Your task to perform on an android device: When is my next meeting? Image 0: 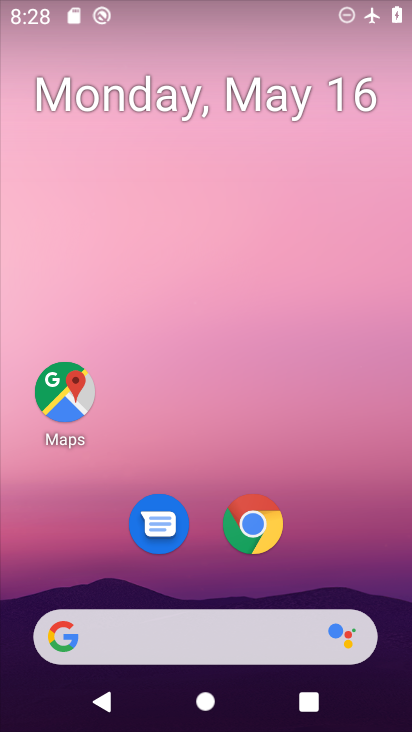
Step 0: drag from (347, 546) to (304, 91)
Your task to perform on an android device: When is my next meeting? Image 1: 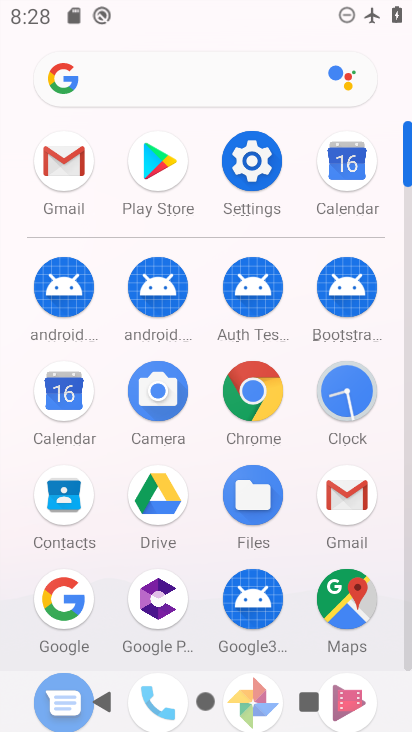
Step 1: click (340, 155)
Your task to perform on an android device: When is my next meeting? Image 2: 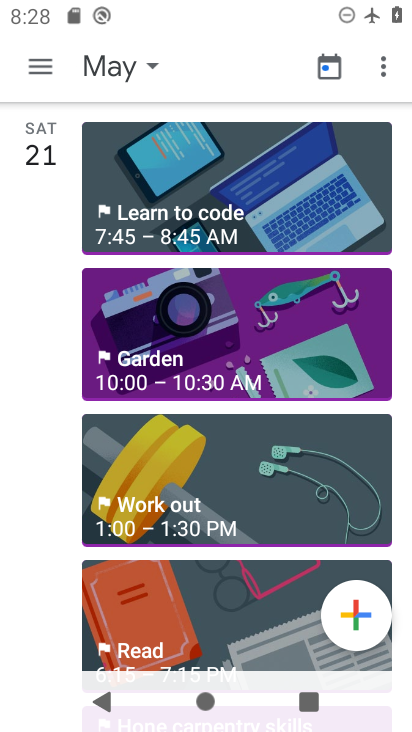
Step 2: click (39, 60)
Your task to perform on an android device: When is my next meeting? Image 3: 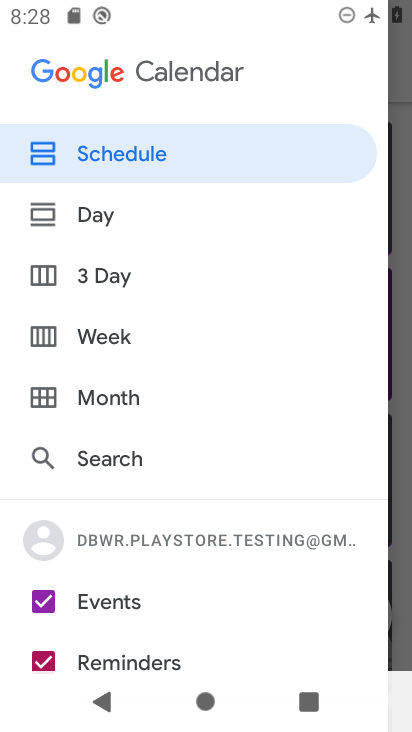
Step 3: click (55, 325)
Your task to perform on an android device: When is my next meeting? Image 4: 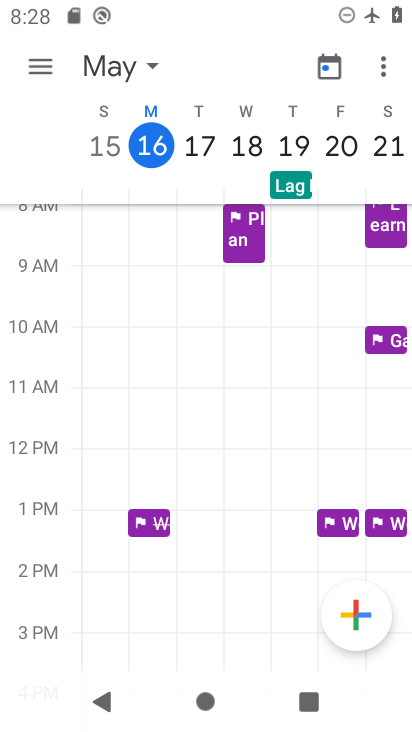
Step 4: click (148, 124)
Your task to perform on an android device: When is my next meeting? Image 5: 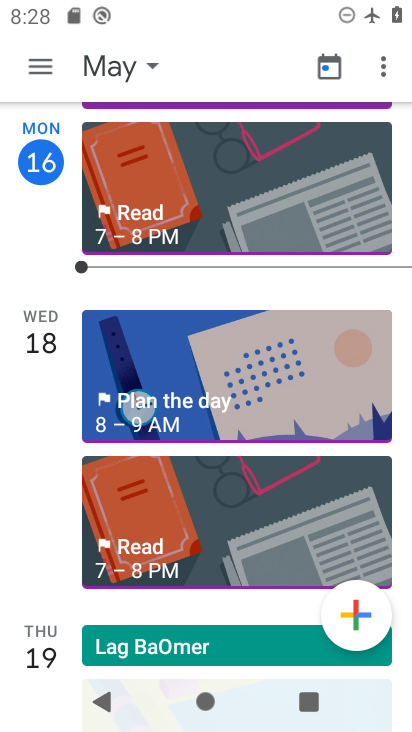
Step 5: task complete